Your task to perform on an android device: turn on javascript in the chrome app Image 0: 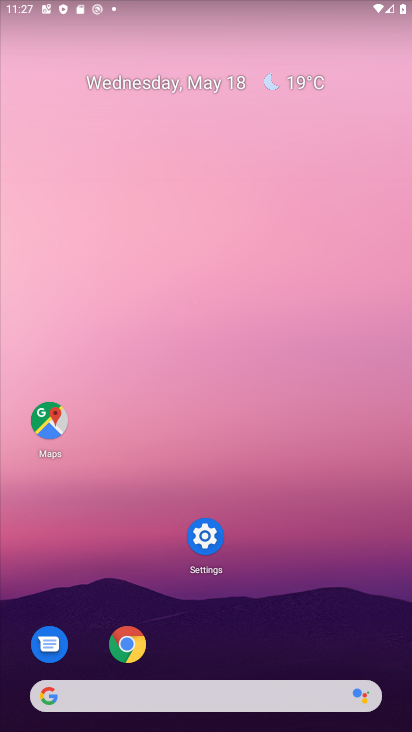
Step 0: press home button
Your task to perform on an android device: turn on javascript in the chrome app Image 1: 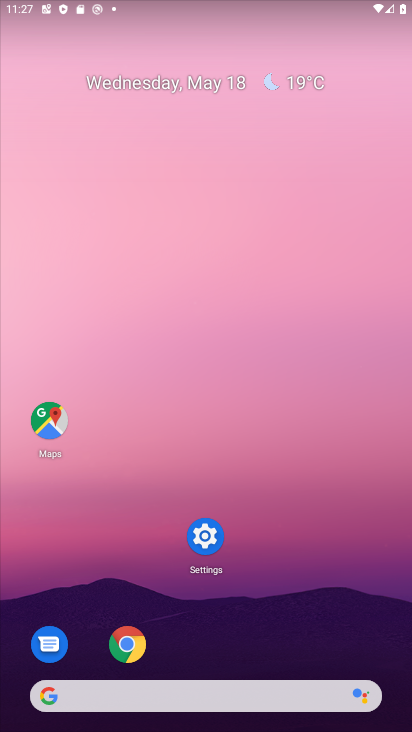
Step 1: drag from (304, 515) to (306, 157)
Your task to perform on an android device: turn on javascript in the chrome app Image 2: 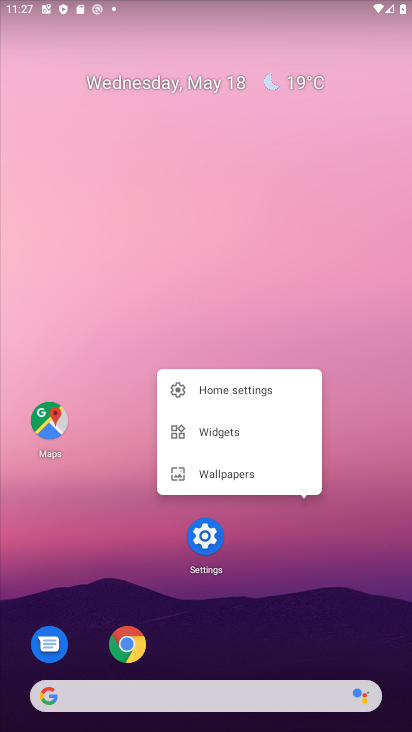
Step 2: click (352, 476)
Your task to perform on an android device: turn on javascript in the chrome app Image 3: 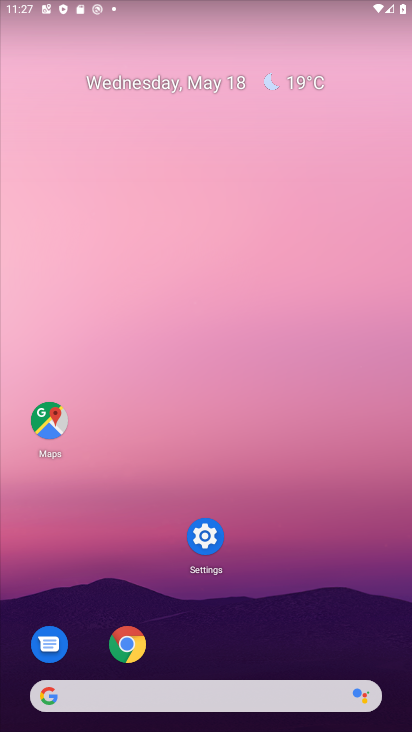
Step 3: drag from (357, 560) to (368, 183)
Your task to perform on an android device: turn on javascript in the chrome app Image 4: 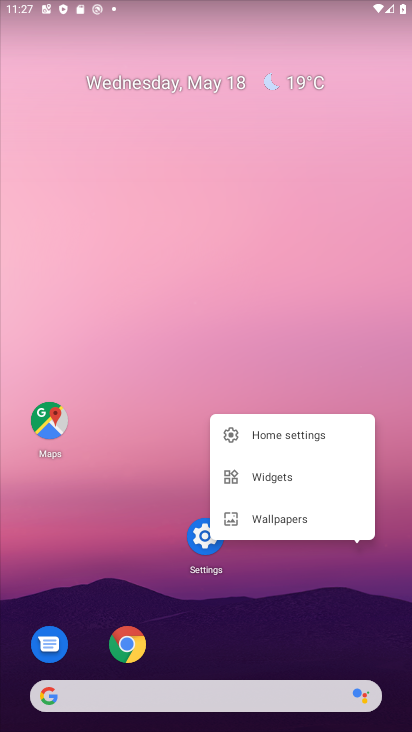
Step 4: click (359, 621)
Your task to perform on an android device: turn on javascript in the chrome app Image 5: 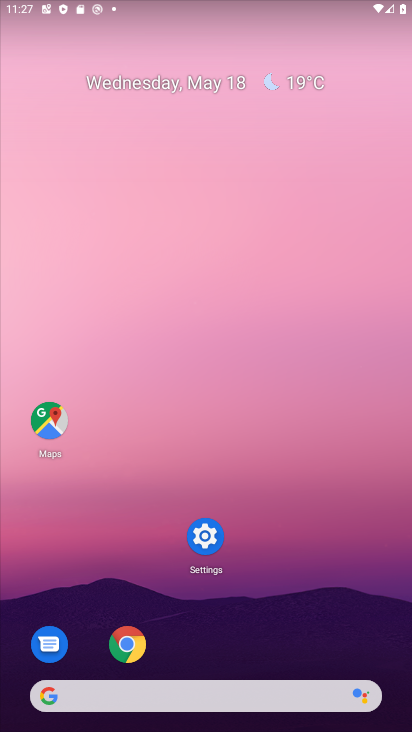
Step 5: drag from (362, 633) to (368, 188)
Your task to perform on an android device: turn on javascript in the chrome app Image 6: 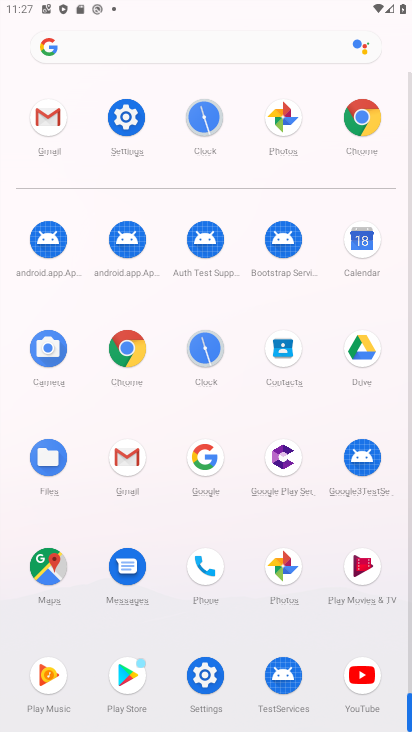
Step 6: click (134, 349)
Your task to perform on an android device: turn on javascript in the chrome app Image 7: 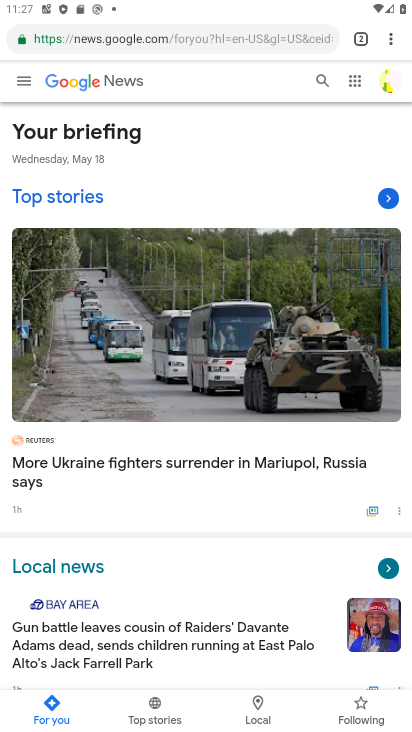
Step 7: drag from (387, 35) to (243, 471)
Your task to perform on an android device: turn on javascript in the chrome app Image 8: 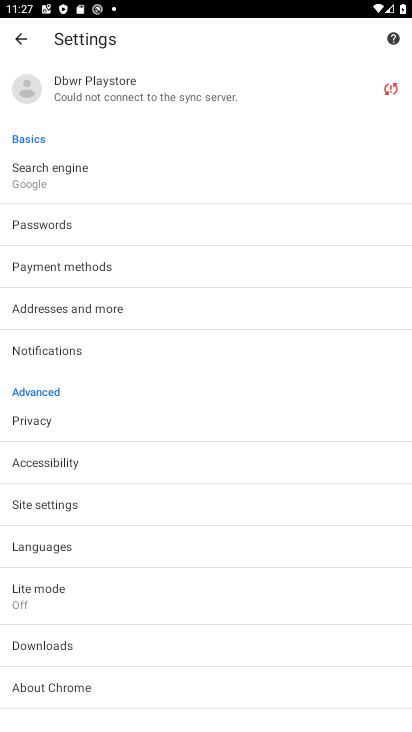
Step 8: drag from (198, 604) to (225, 331)
Your task to perform on an android device: turn on javascript in the chrome app Image 9: 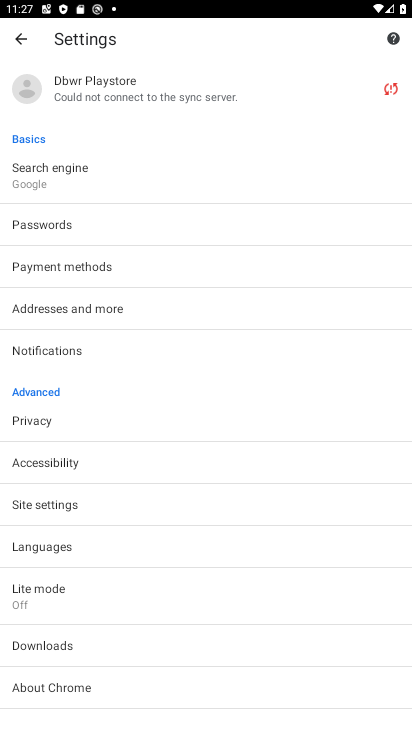
Step 9: click (60, 506)
Your task to perform on an android device: turn on javascript in the chrome app Image 10: 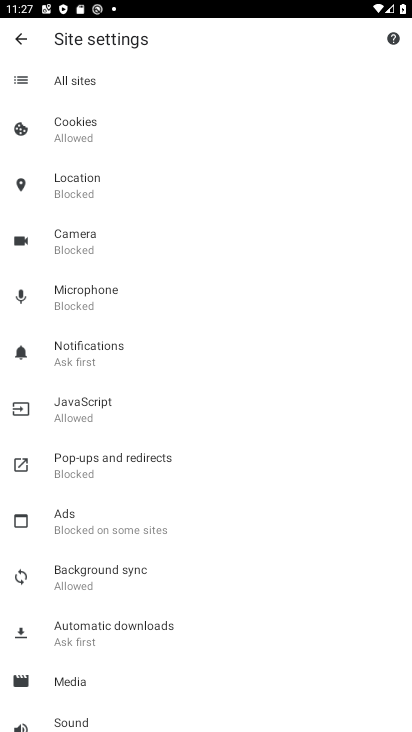
Step 10: click (105, 401)
Your task to perform on an android device: turn on javascript in the chrome app Image 11: 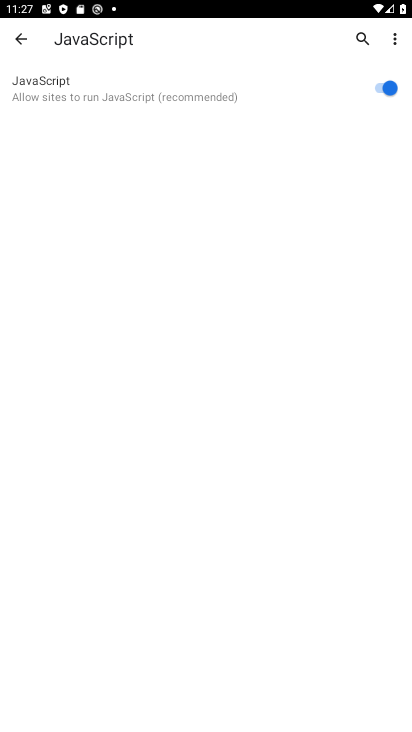
Step 11: task complete